Your task to perform on an android device: Open ESPN.com Image 0: 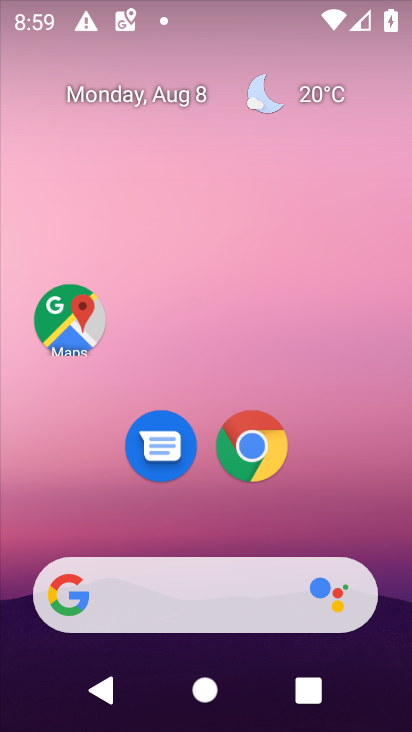
Step 0: click (251, 445)
Your task to perform on an android device: Open ESPN.com Image 1: 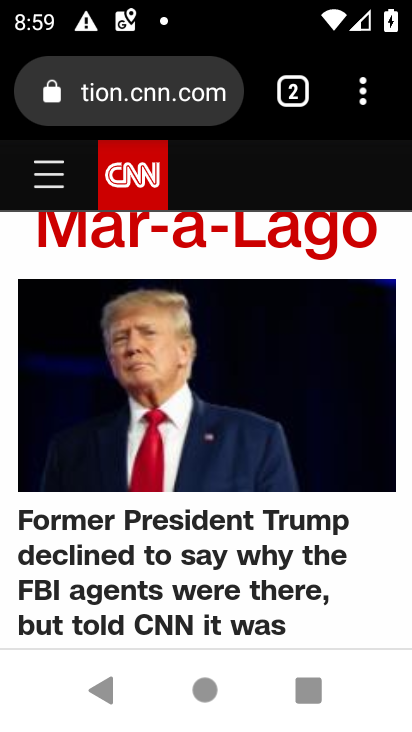
Step 1: click (228, 97)
Your task to perform on an android device: Open ESPN.com Image 2: 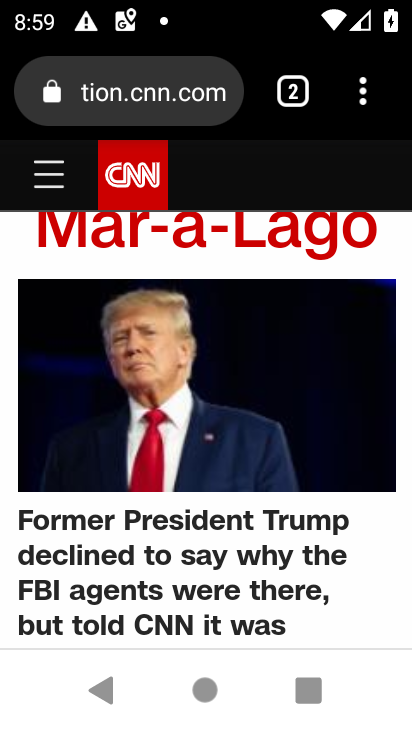
Step 2: click (230, 86)
Your task to perform on an android device: Open ESPN.com Image 3: 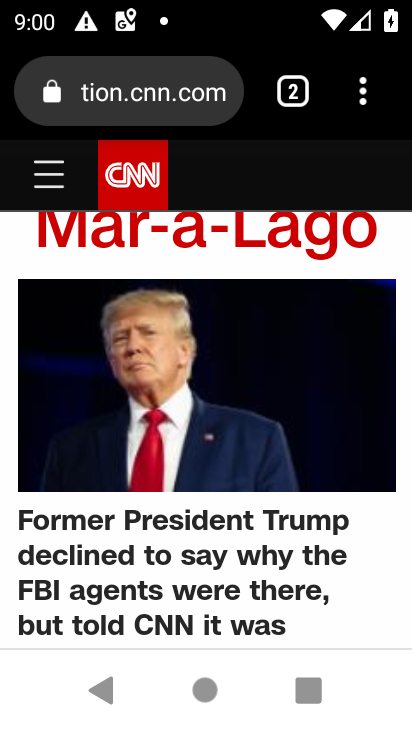
Step 3: click (167, 67)
Your task to perform on an android device: Open ESPN.com Image 4: 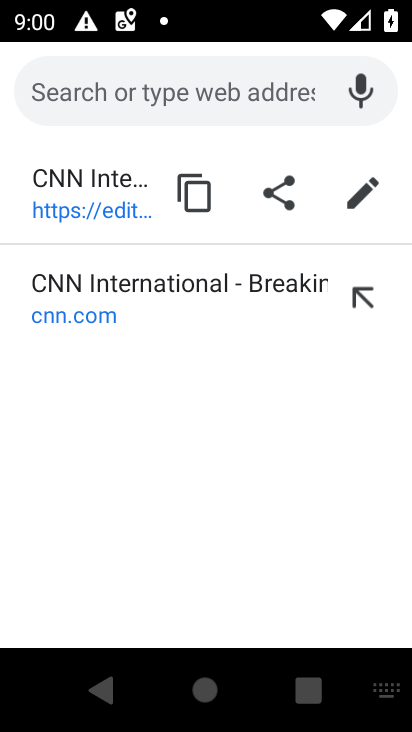
Step 4: type "espn.com"
Your task to perform on an android device: Open ESPN.com Image 5: 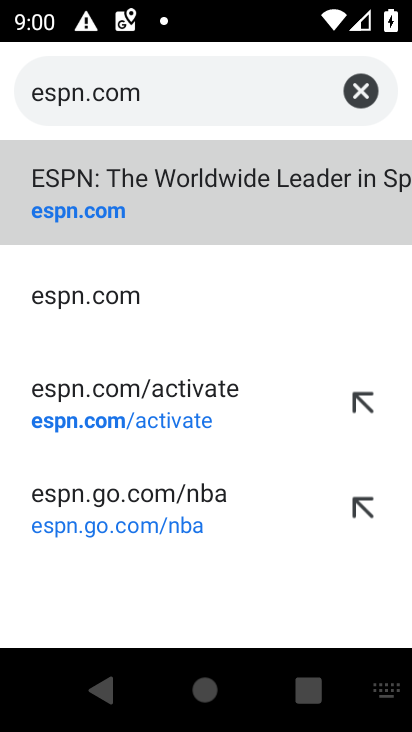
Step 5: click (144, 172)
Your task to perform on an android device: Open ESPN.com Image 6: 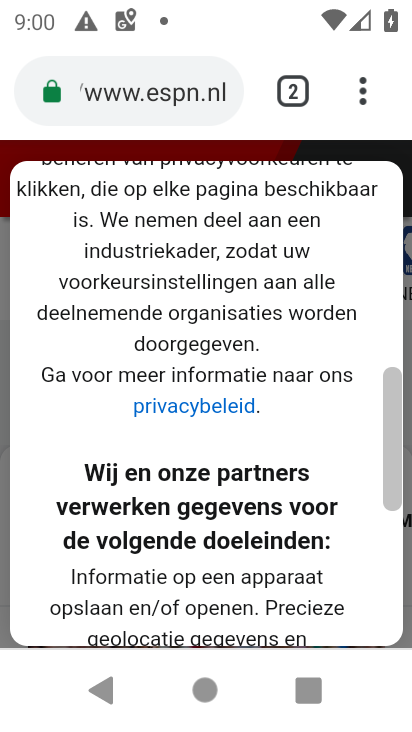
Step 6: drag from (361, 619) to (366, 149)
Your task to perform on an android device: Open ESPN.com Image 7: 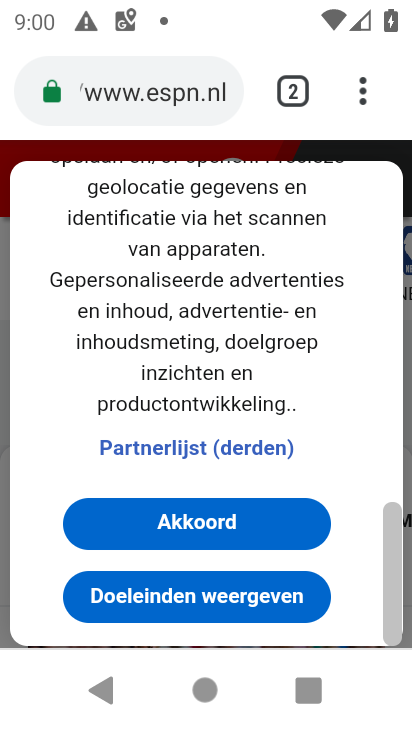
Step 7: click (176, 530)
Your task to perform on an android device: Open ESPN.com Image 8: 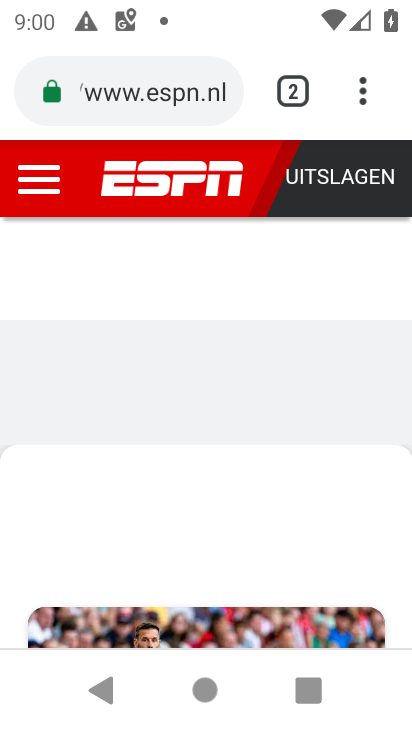
Step 8: task complete